Your task to perform on an android device: check battery use Image 0: 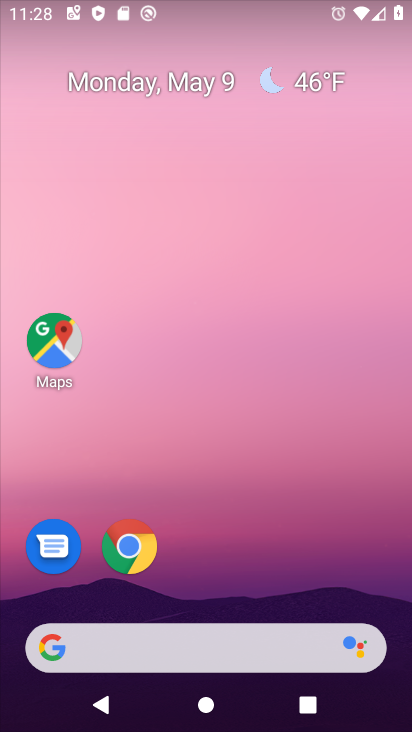
Step 0: drag from (342, 589) to (343, 0)
Your task to perform on an android device: check battery use Image 1: 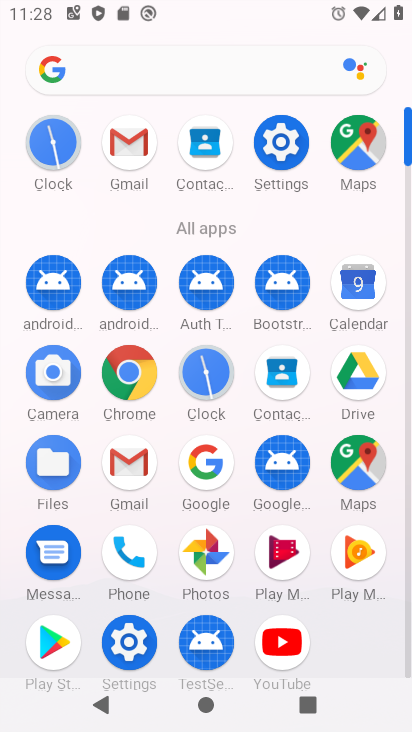
Step 1: click (275, 161)
Your task to perform on an android device: check battery use Image 2: 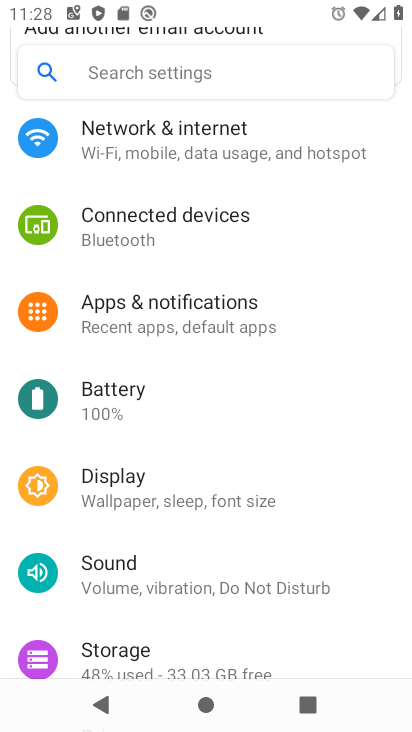
Step 2: click (88, 412)
Your task to perform on an android device: check battery use Image 3: 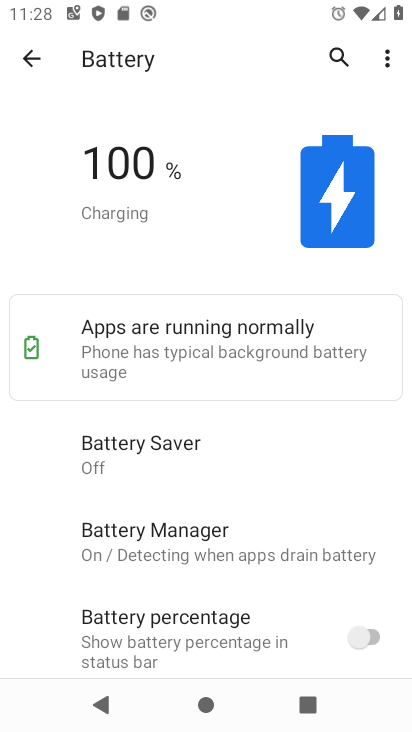
Step 3: click (396, 57)
Your task to perform on an android device: check battery use Image 4: 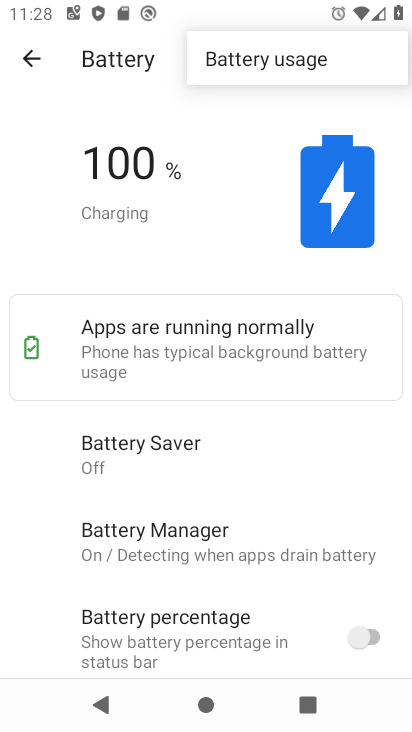
Step 4: click (255, 70)
Your task to perform on an android device: check battery use Image 5: 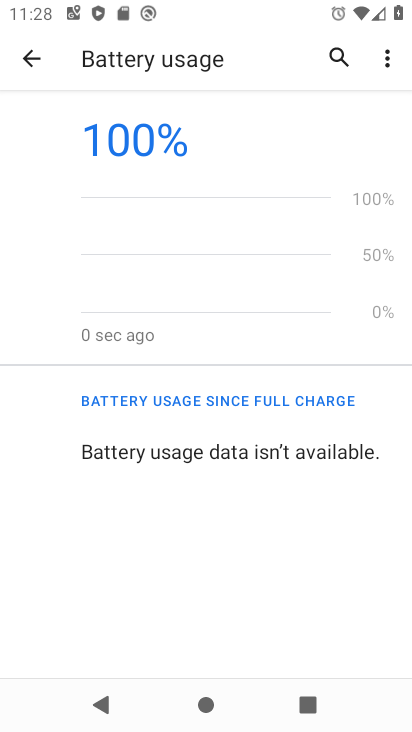
Step 5: task complete